Your task to perform on an android device: open wifi settings Image 0: 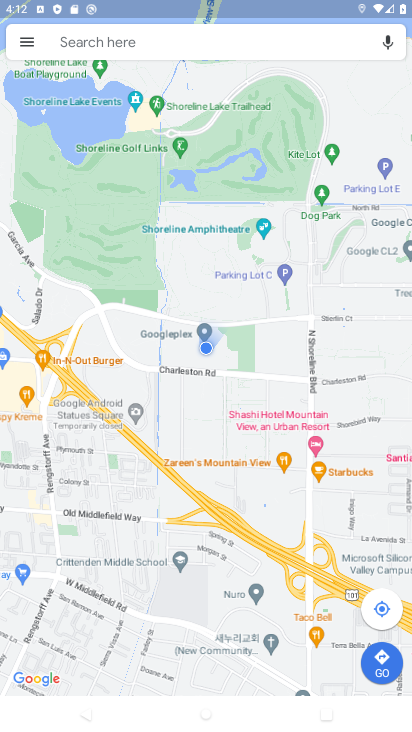
Step 0: drag from (200, 551) to (228, 239)
Your task to perform on an android device: open wifi settings Image 1: 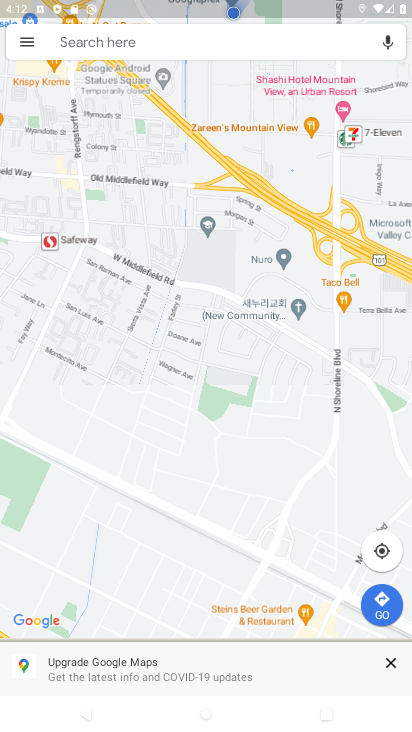
Step 1: press home button
Your task to perform on an android device: open wifi settings Image 2: 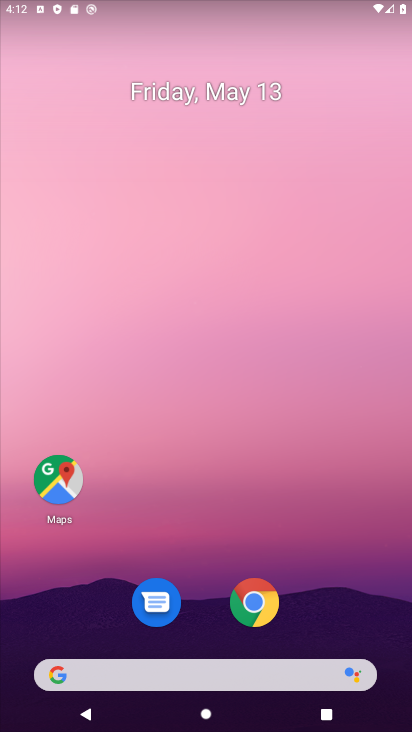
Step 2: drag from (205, 676) to (201, 243)
Your task to perform on an android device: open wifi settings Image 3: 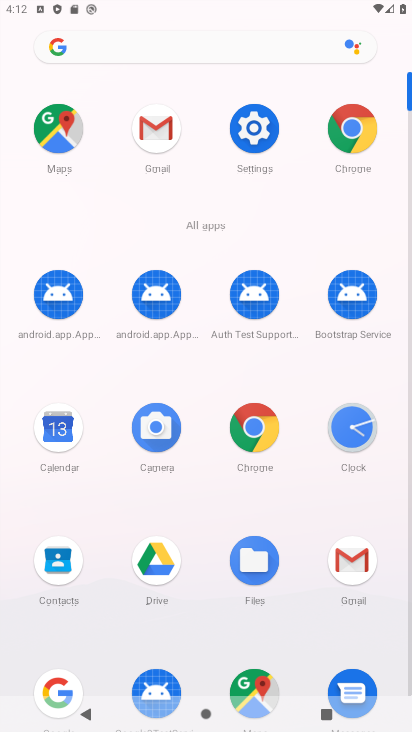
Step 3: click (240, 134)
Your task to perform on an android device: open wifi settings Image 4: 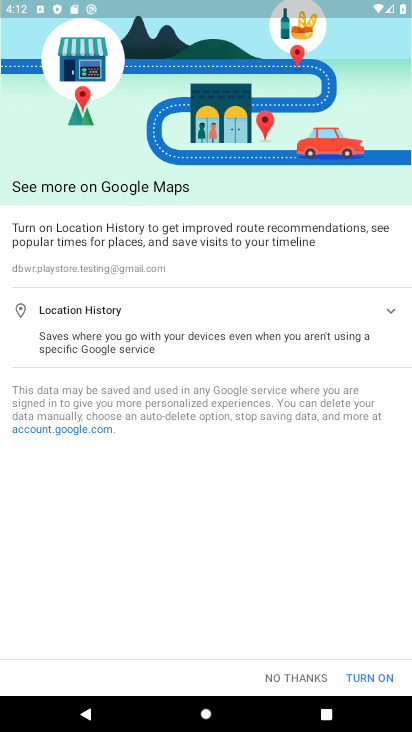
Step 4: click (387, 681)
Your task to perform on an android device: open wifi settings Image 5: 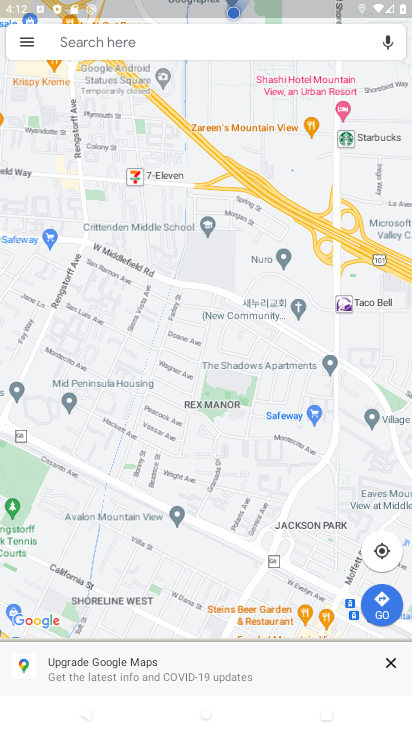
Step 5: press home button
Your task to perform on an android device: open wifi settings Image 6: 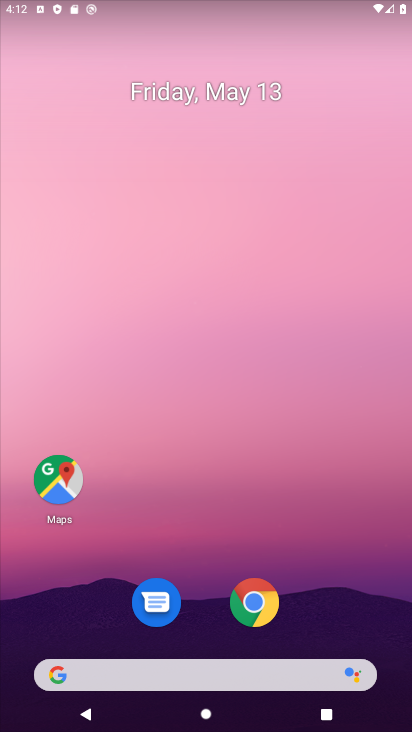
Step 6: drag from (158, 633) to (166, 281)
Your task to perform on an android device: open wifi settings Image 7: 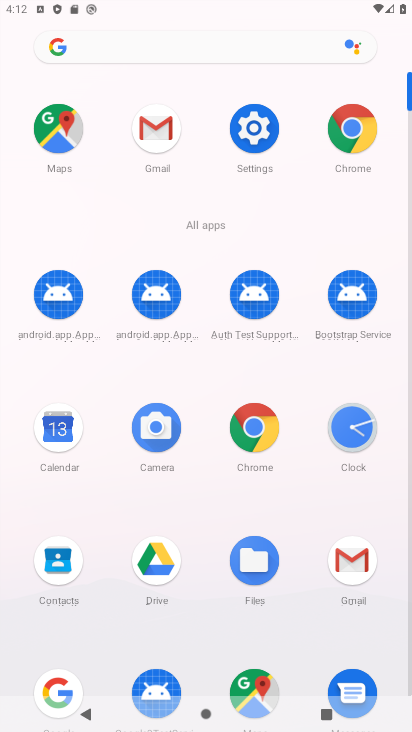
Step 7: click (242, 135)
Your task to perform on an android device: open wifi settings Image 8: 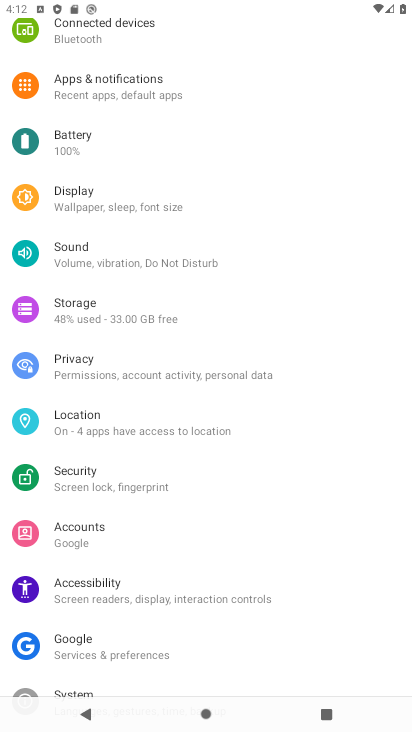
Step 8: drag from (136, 49) to (152, 361)
Your task to perform on an android device: open wifi settings Image 9: 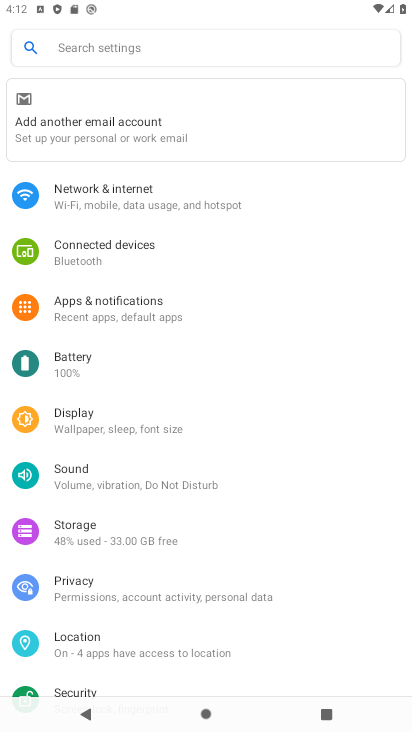
Step 9: click (128, 199)
Your task to perform on an android device: open wifi settings Image 10: 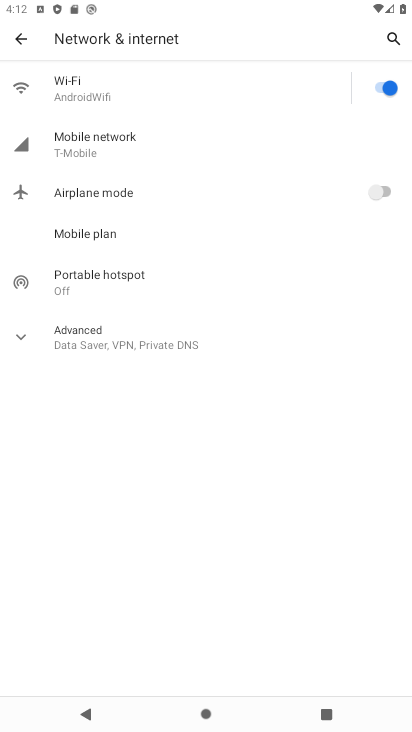
Step 10: click (81, 104)
Your task to perform on an android device: open wifi settings Image 11: 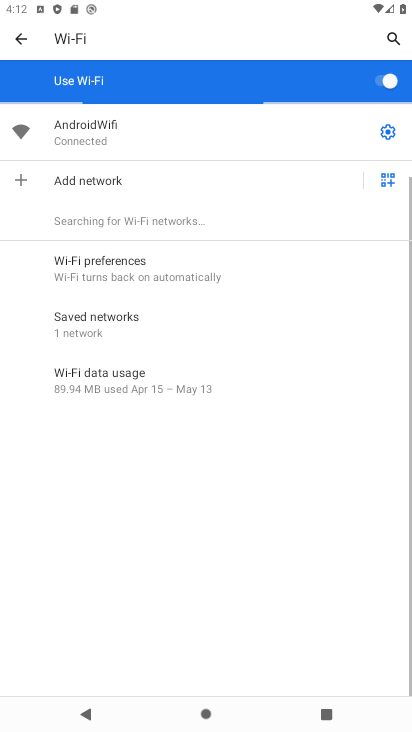
Step 11: click (385, 134)
Your task to perform on an android device: open wifi settings Image 12: 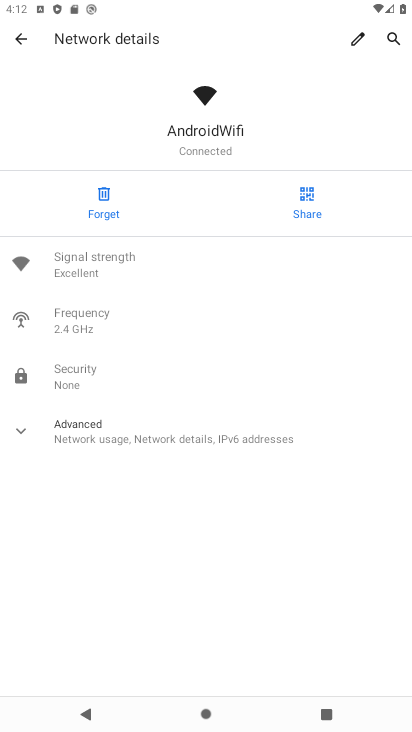
Step 12: click (158, 437)
Your task to perform on an android device: open wifi settings Image 13: 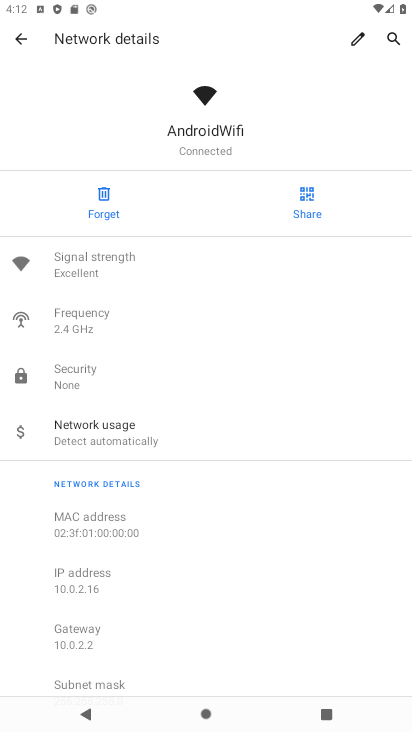
Step 13: task complete